Your task to perform on an android device: Go to Android settings Image 0: 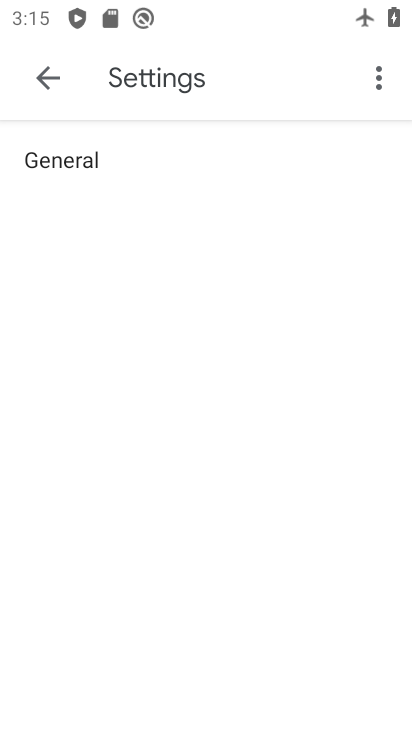
Step 0: press back button
Your task to perform on an android device: Go to Android settings Image 1: 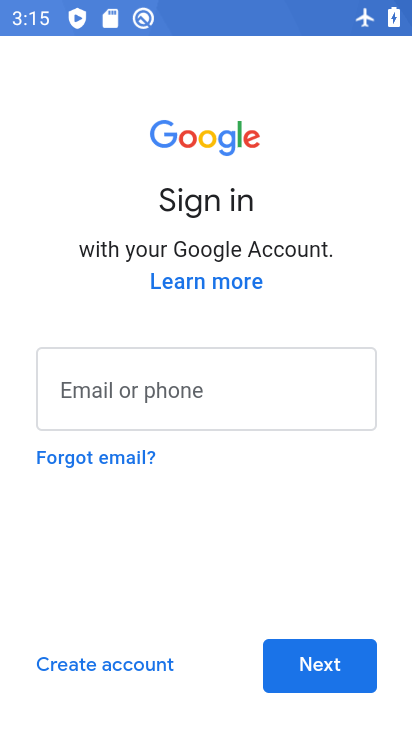
Step 1: press back button
Your task to perform on an android device: Go to Android settings Image 2: 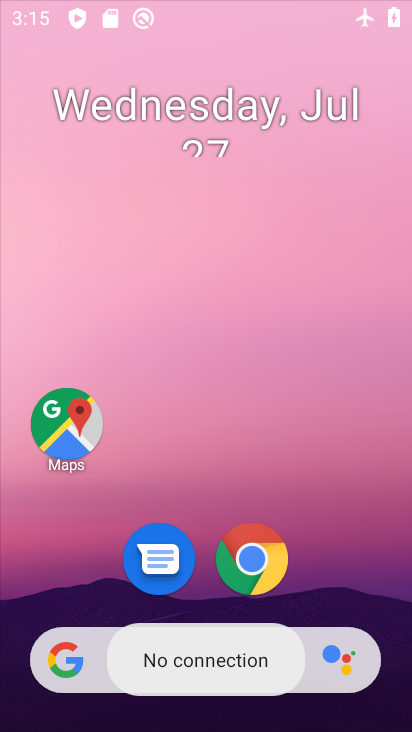
Step 2: press home button
Your task to perform on an android device: Go to Android settings Image 3: 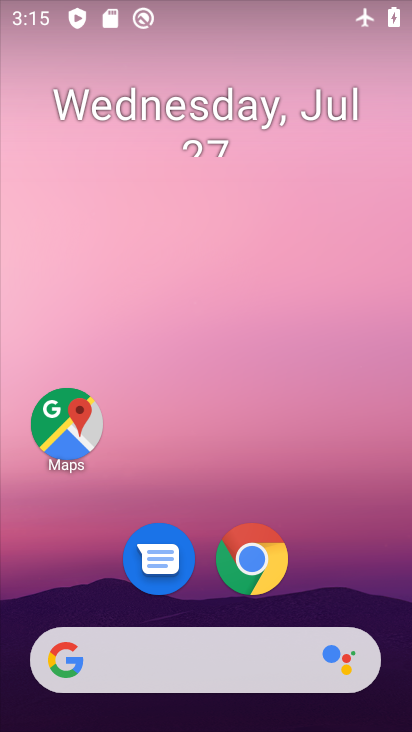
Step 3: drag from (65, 587) to (243, 12)
Your task to perform on an android device: Go to Android settings Image 4: 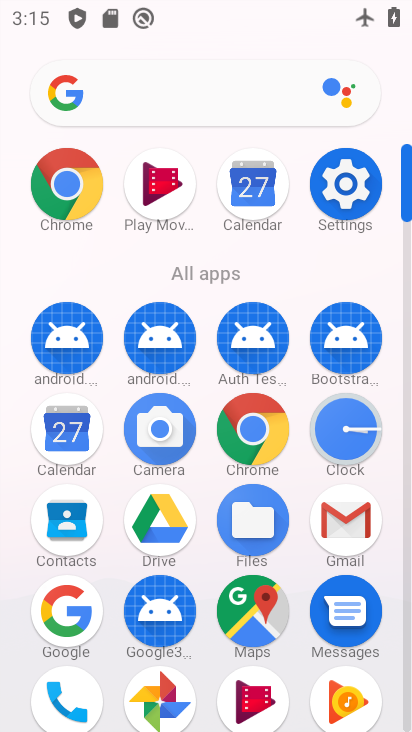
Step 4: click (360, 190)
Your task to perform on an android device: Go to Android settings Image 5: 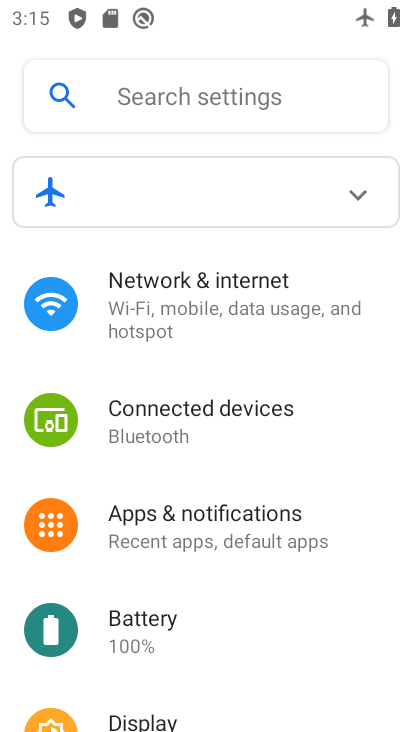
Step 5: drag from (185, 686) to (297, 65)
Your task to perform on an android device: Go to Android settings Image 6: 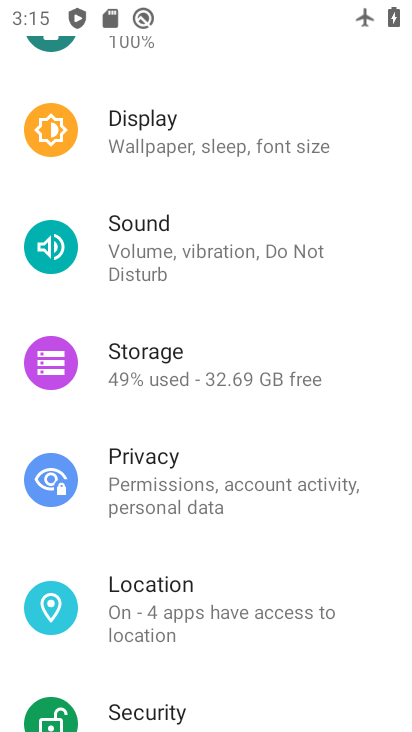
Step 6: drag from (224, 646) to (357, 15)
Your task to perform on an android device: Go to Android settings Image 7: 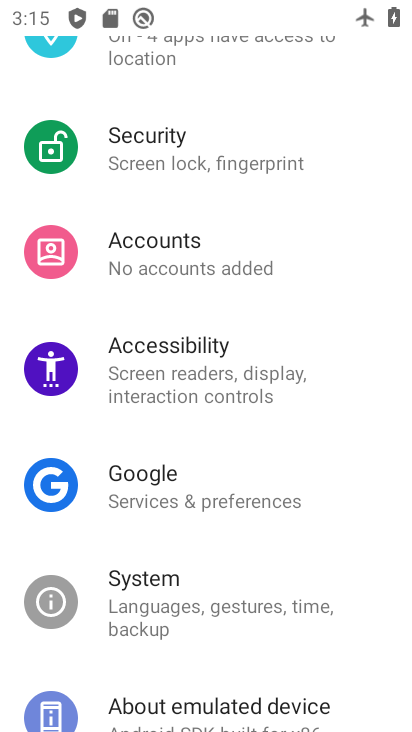
Step 7: drag from (210, 662) to (349, 37)
Your task to perform on an android device: Go to Android settings Image 8: 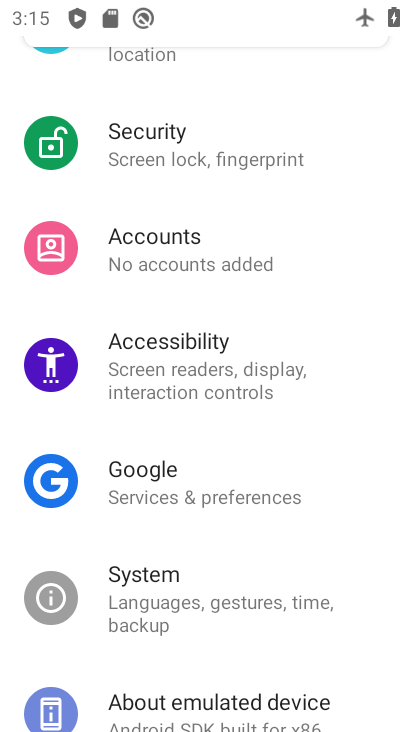
Step 8: click (148, 688)
Your task to perform on an android device: Go to Android settings Image 9: 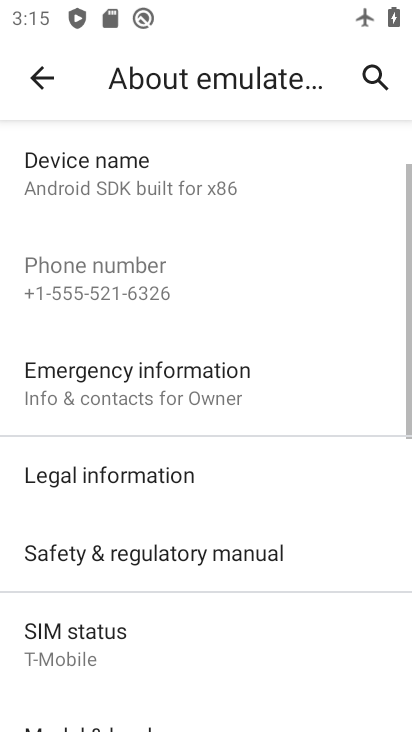
Step 9: drag from (148, 688) to (302, 11)
Your task to perform on an android device: Go to Android settings Image 10: 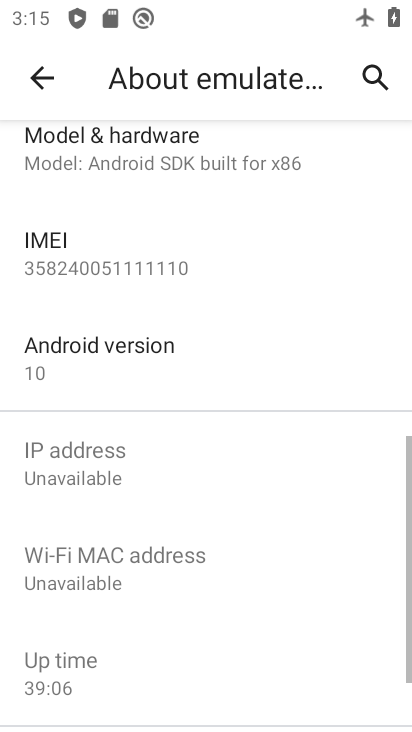
Step 10: click (139, 361)
Your task to perform on an android device: Go to Android settings Image 11: 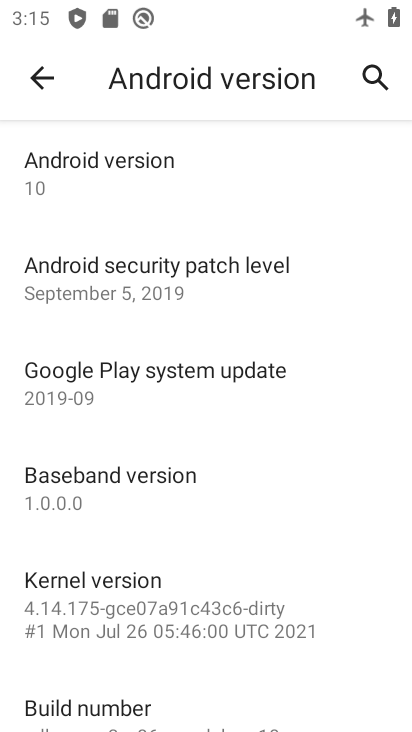
Step 11: task complete